Your task to perform on an android device: toggle airplane mode Image 0: 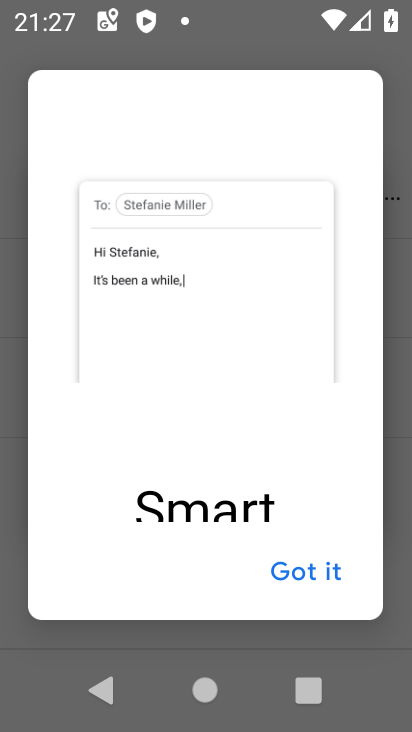
Step 0: press home button
Your task to perform on an android device: toggle airplane mode Image 1: 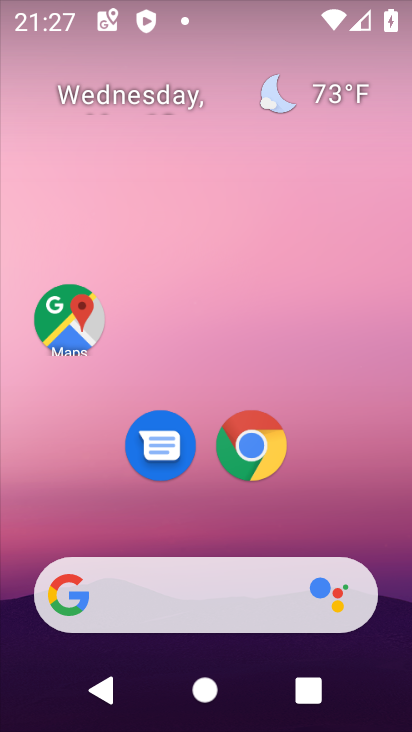
Step 1: drag from (303, 501) to (327, 216)
Your task to perform on an android device: toggle airplane mode Image 2: 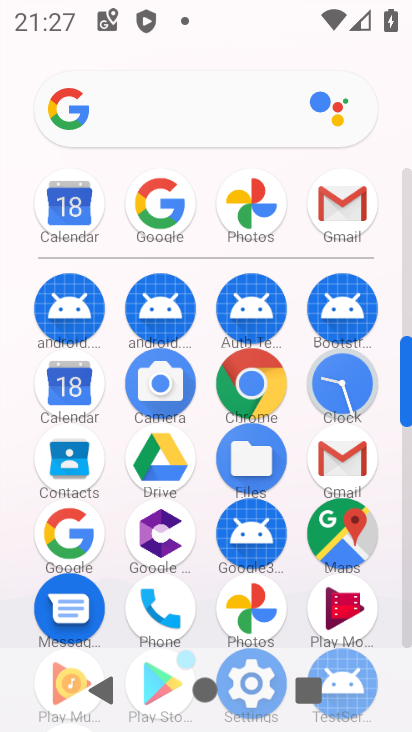
Step 2: drag from (218, 596) to (232, 296)
Your task to perform on an android device: toggle airplane mode Image 3: 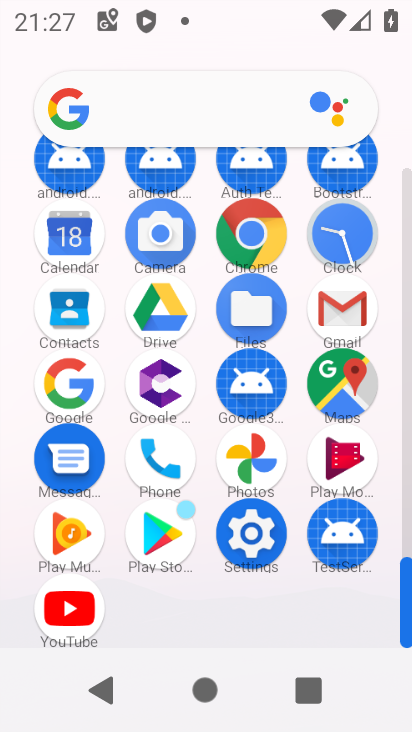
Step 3: click (235, 519)
Your task to perform on an android device: toggle airplane mode Image 4: 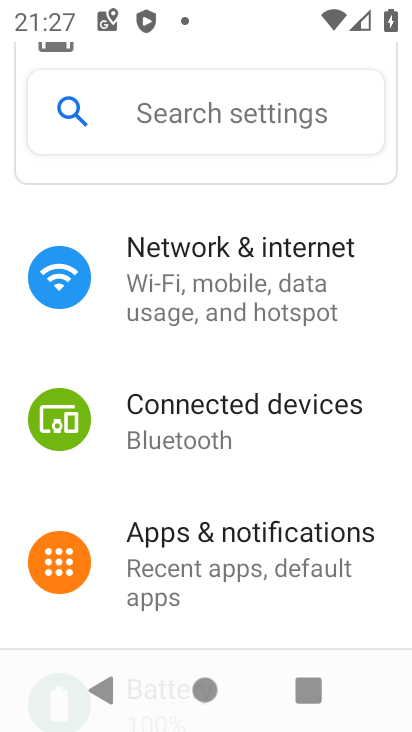
Step 4: click (204, 301)
Your task to perform on an android device: toggle airplane mode Image 5: 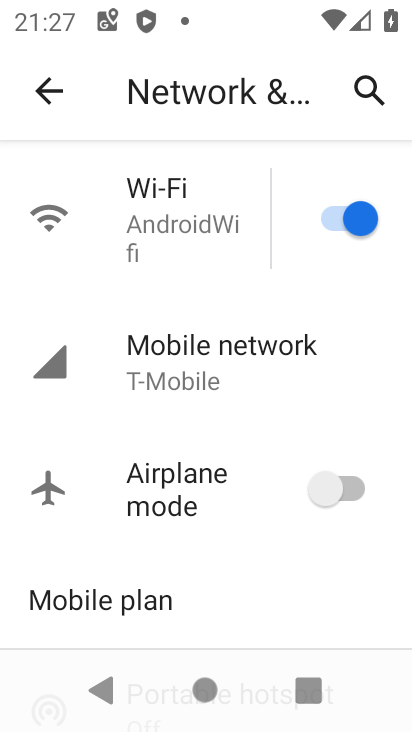
Step 5: click (331, 481)
Your task to perform on an android device: toggle airplane mode Image 6: 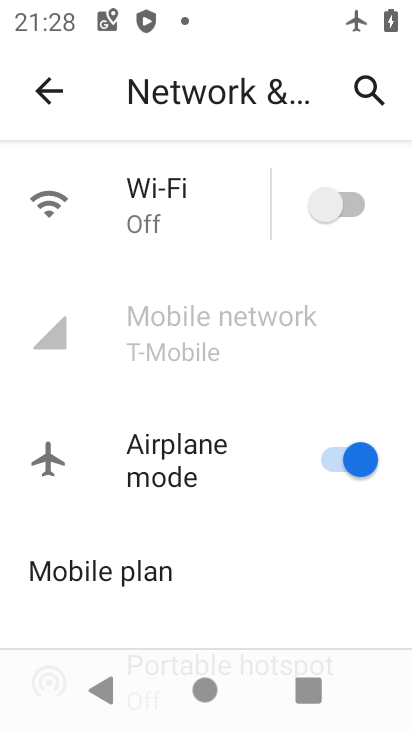
Step 6: task complete